Your task to perform on an android device: What's the weather today? Image 0: 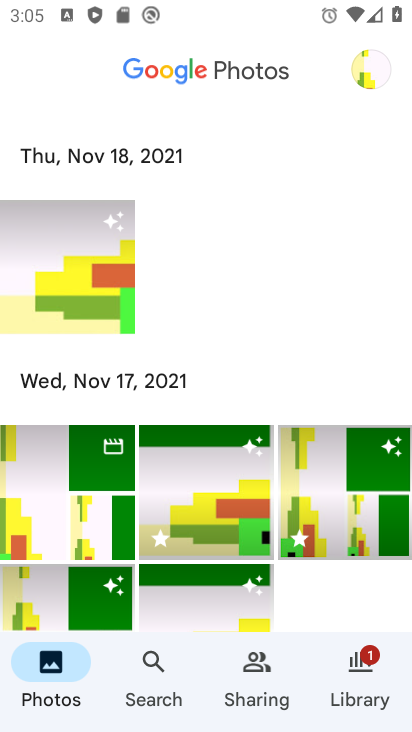
Step 0: press home button
Your task to perform on an android device: What's the weather today? Image 1: 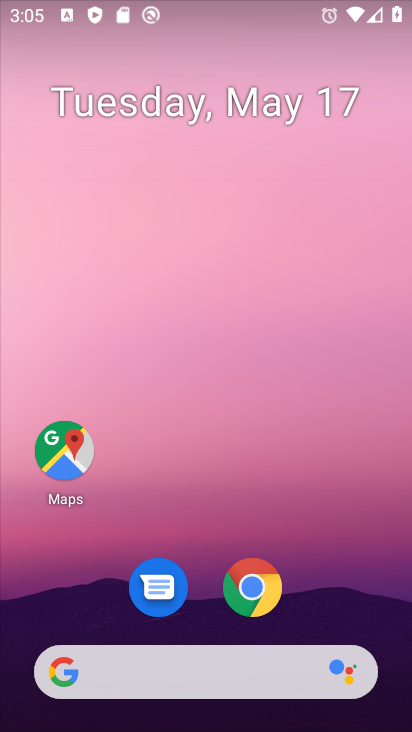
Step 1: drag from (216, 620) to (283, 197)
Your task to perform on an android device: What's the weather today? Image 2: 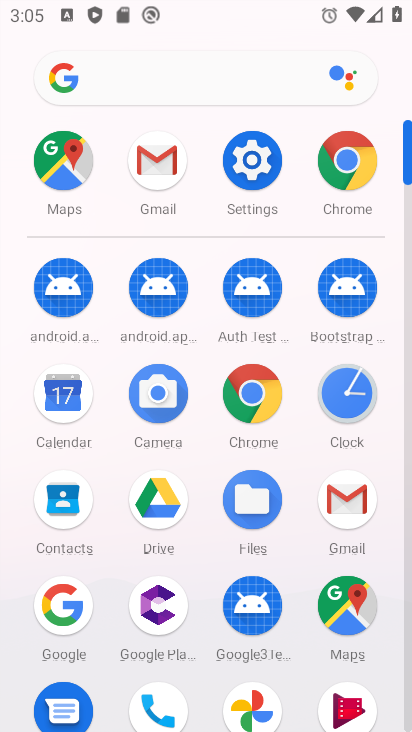
Step 2: click (153, 89)
Your task to perform on an android device: What's the weather today? Image 3: 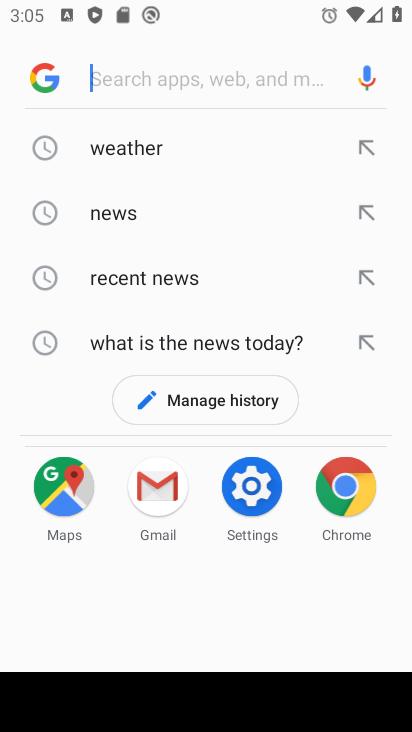
Step 3: type "weather today"
Your task to perform on an android device: What's the weather today? Image 4: 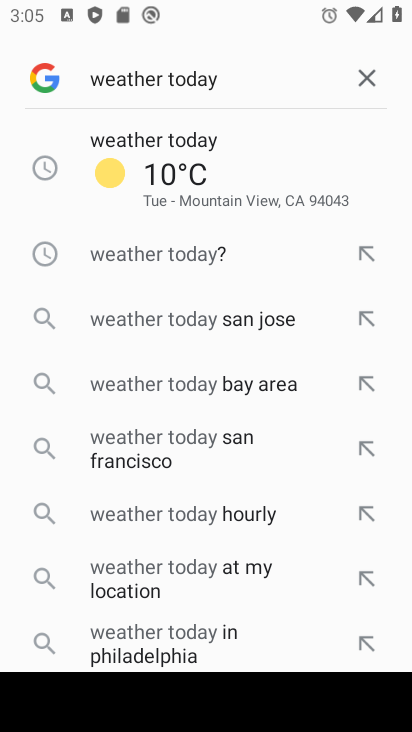
Step 4: click (60, 158)
Your task to perform on an android device: What's the weather today? Image 5: 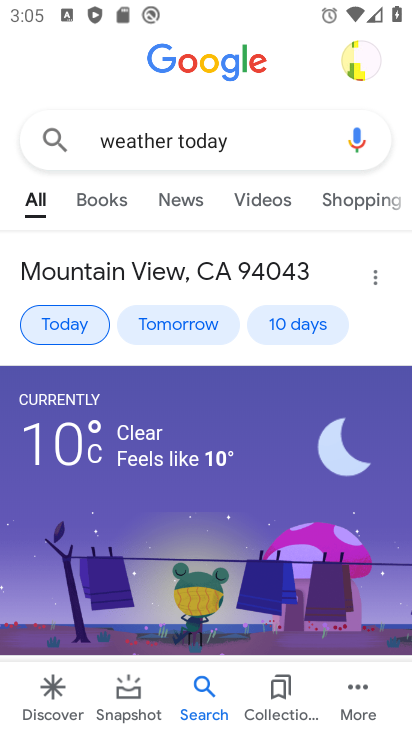
Step 5: task complete